Your task to perform on an android device: stop showing notifications on the lock screen Image 0: 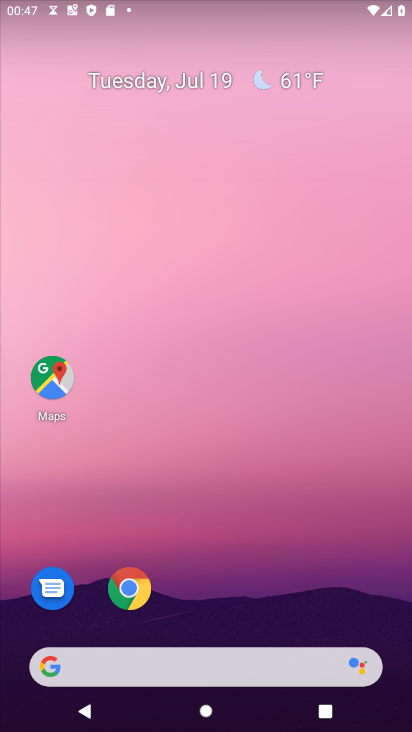
Step 0: press home button
Your task to perform on an android device: stop showing notifications on the lock screen Image 1: 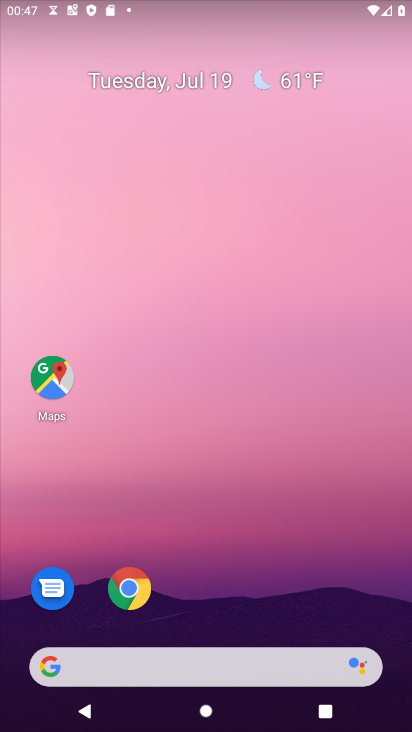
Step 1: drag from (312, 668) to (260, 241)
Your task to perform on an android device: stop showing notifications on the lock screen Image 2: 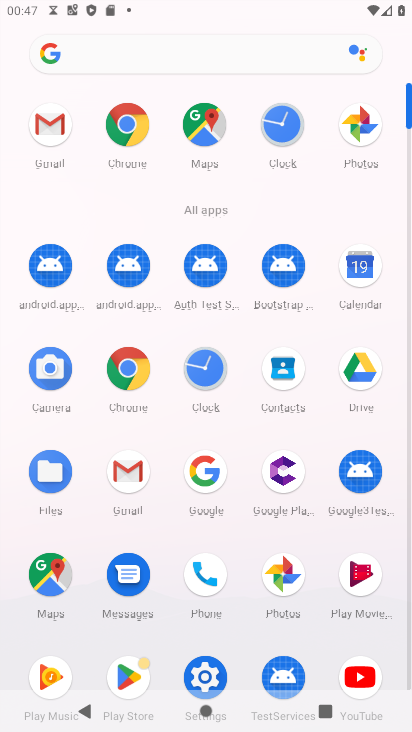
Step 2: click (211, 673)
Your task to perform on an android device: stop showing notifications on the lock screen Image 3: 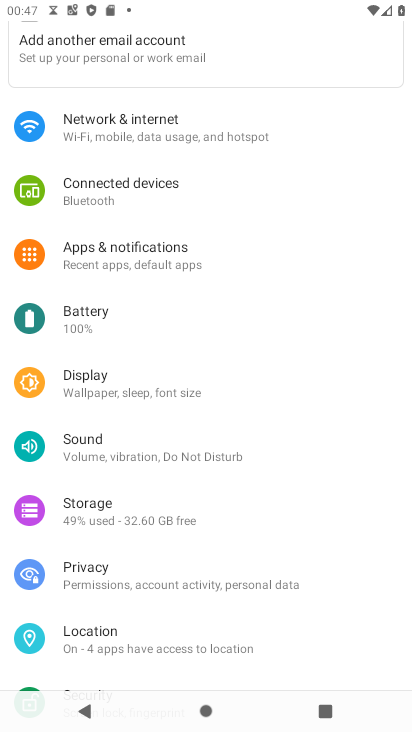
Step 3: drag from (154, 158) to (161, 264)
Your task to perform on an android device: stop showing notifications on the lock screen Image 4: 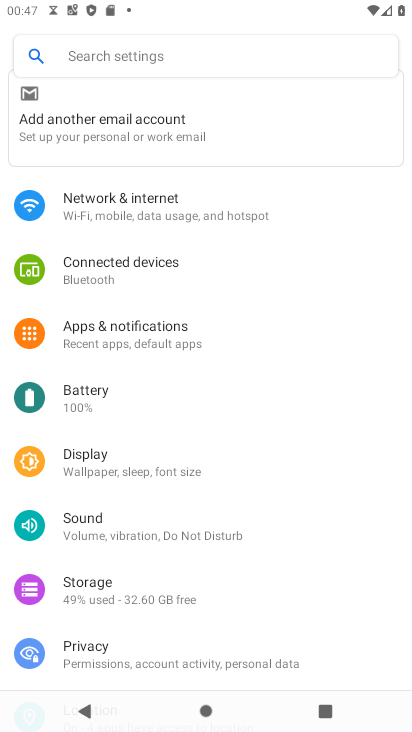
Step 4: click (143, 47)
Your task to perform on an android device: stop showing notifications on the lock screen Image 5: 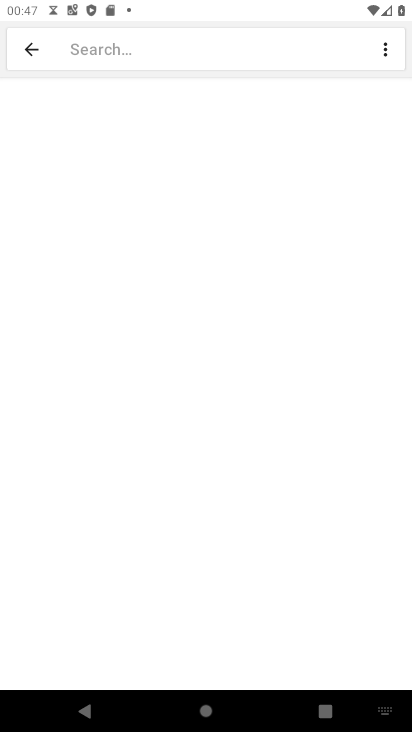
Step 5: click (375, 710)
Your task to perform on an android device: stop showing notifications on the lock screen Image 6: 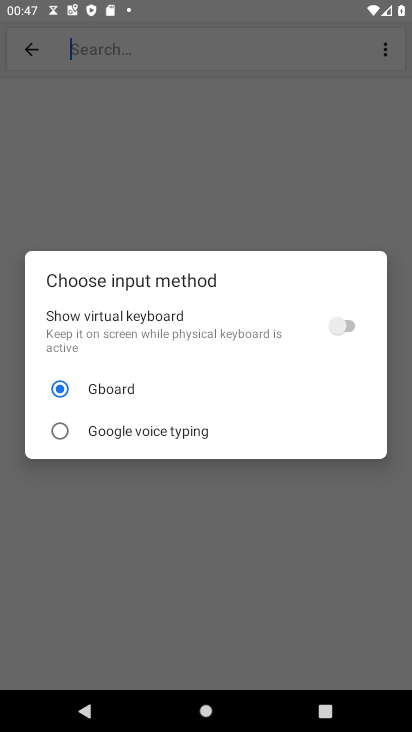
Step 6: click (339, 325)
Your task to perform on an android device: stop showing notifications on the lock screen Image 7: 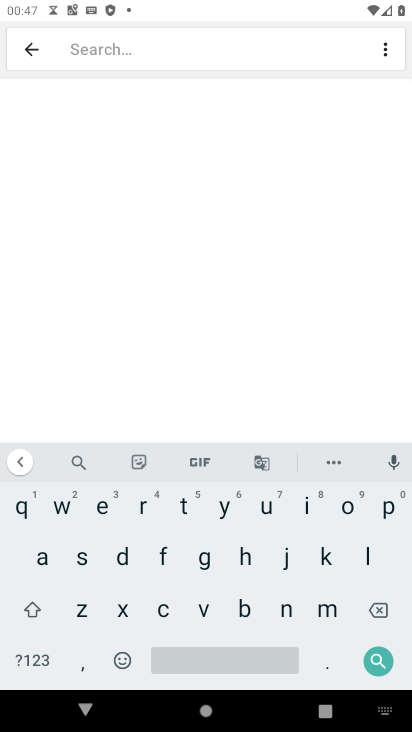
Step 7: click (284, 605)
Your task to perform on an android device: stop showing notifications on the lock screen Image 8: 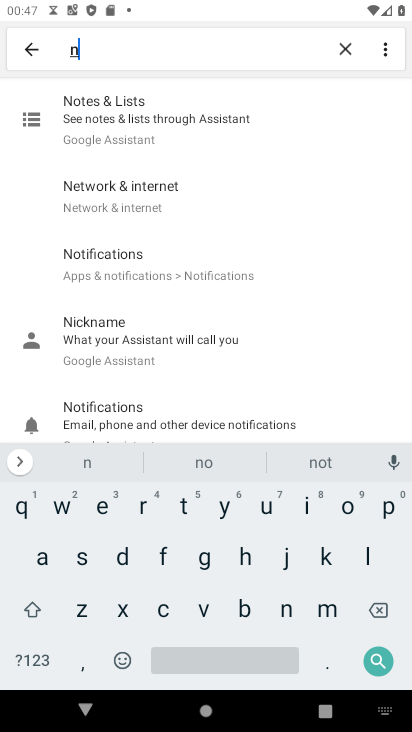
Step 8: click (339, 508)
Your task to perform on an android device: stop showing notifications on the lock screen Image 9: 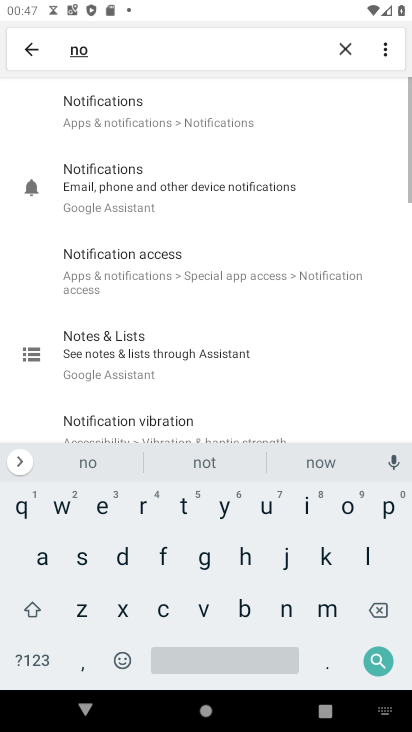
Step 9: click (106, 123)
Your task to perform on an android device: stop showing notifications on the lock screen Image 10: 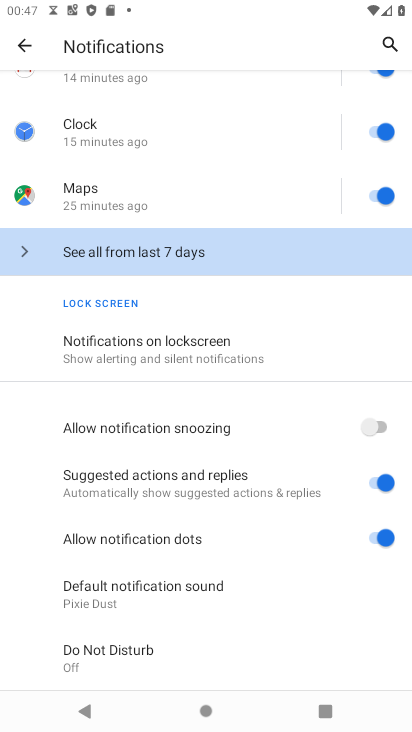
Step 10: click (158, 336)
Your task to perform on an android device: stop showing notifications on the lock screen Image 11: 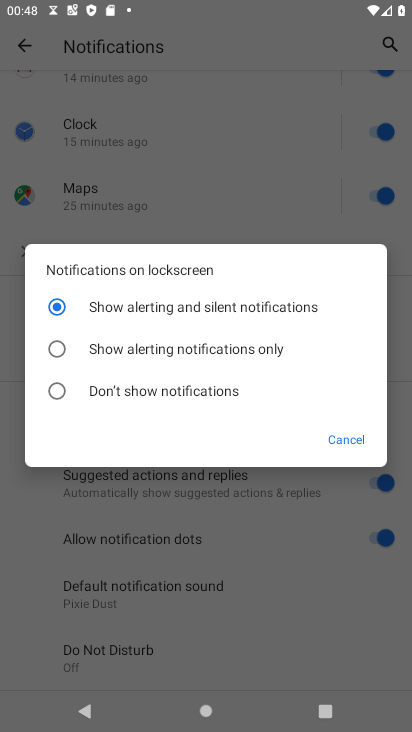
Step 11: click (113, 398)
Your task to perform on an android device: stop showing notifications on the lock screen Image 12: 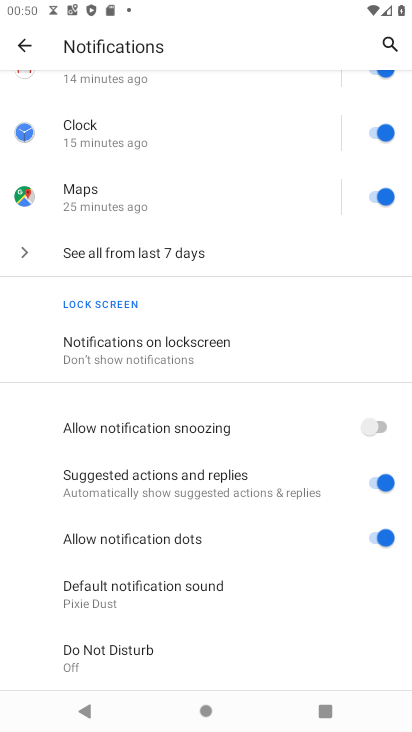
Step 12: task complete